Your task to perform on an android device: Open accessibility settings Image 0: 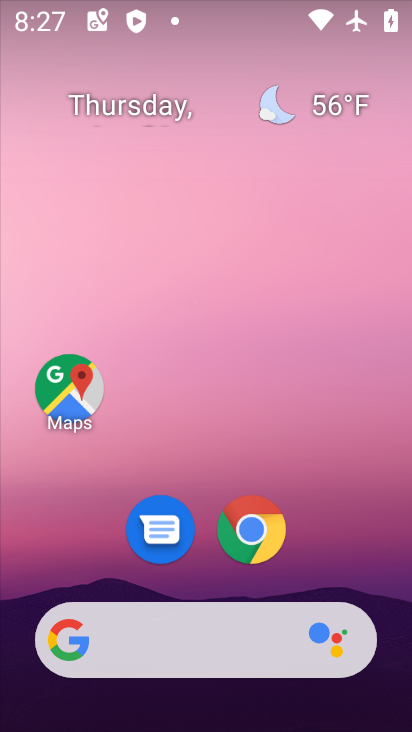
Step 0: drag from (267, 393) to (365, 66)
Your task to perform on an android device: Open accessibility settings Image 1: 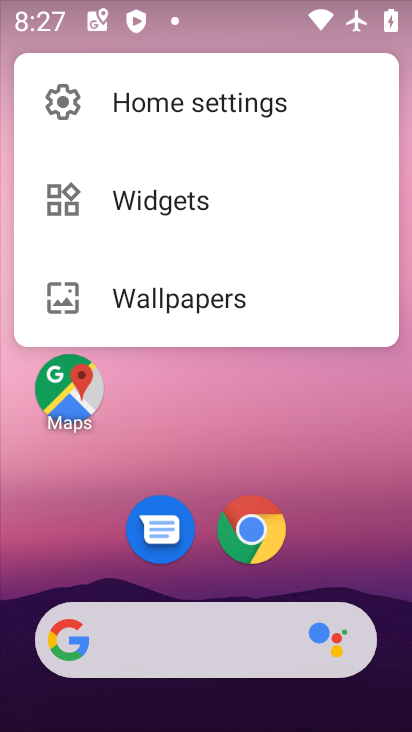
Step 1: drag from (171, 640) to (316, 49)
Your task to perform on an android device: Open accessibility settings Image 2: 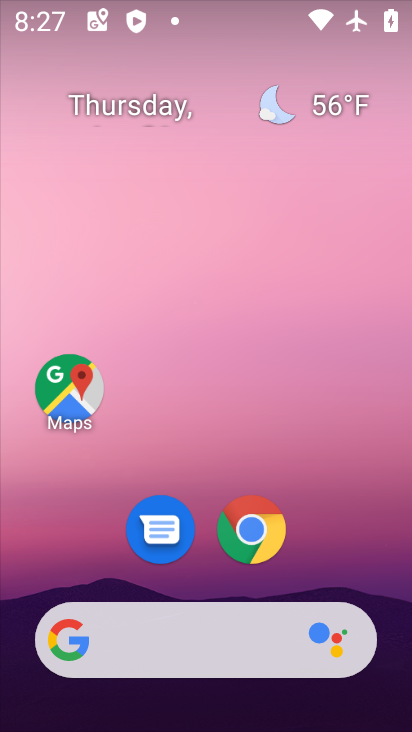
Step 2: drag from (222, 554) to (257, 164)
Your task to perform on an android device: Open accessibility settings Image 3: 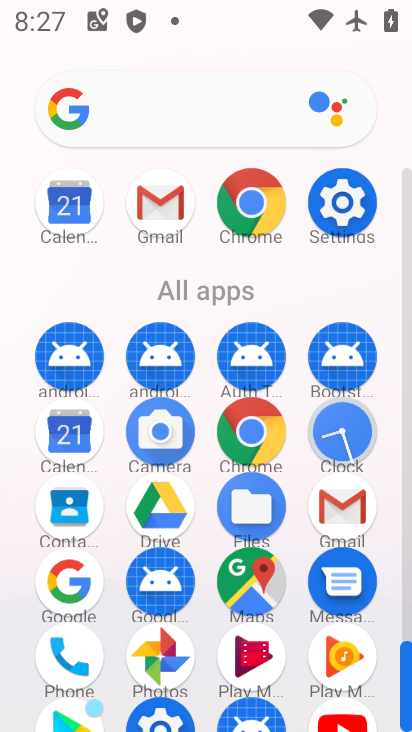
Step 3: click (354, 202)
Your task to perform on an android device: Open accessibility settings Image 4: 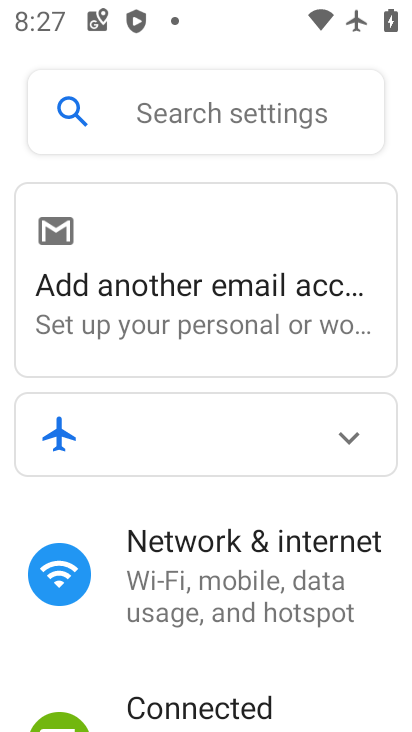
Step 4: drag from (173, 672) to (270, 147)
Your task to perform on an android device: Open accessibility settings Image 5: 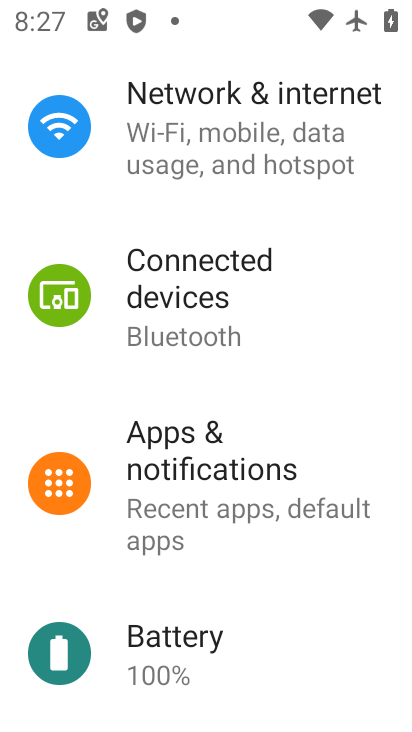
Step 5: drag from (234, 682) to (346, 224)
Your task to perform on an android device: Open accessibility settings Image 6: 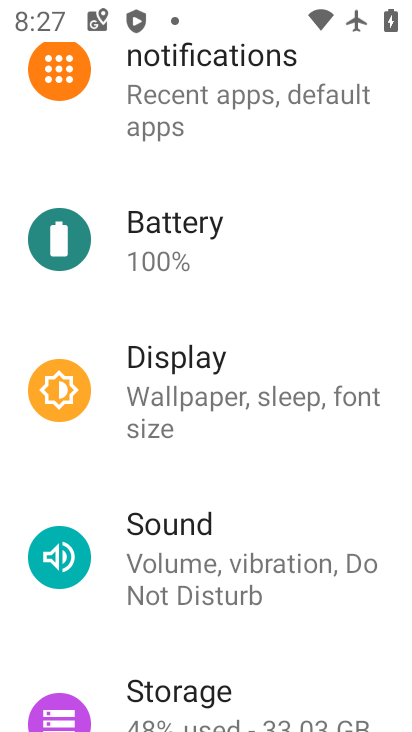
Step 6: drag from (215, 654) to (305, 231)
Your task to perform on an android device: Open accessibility settings Image 7: 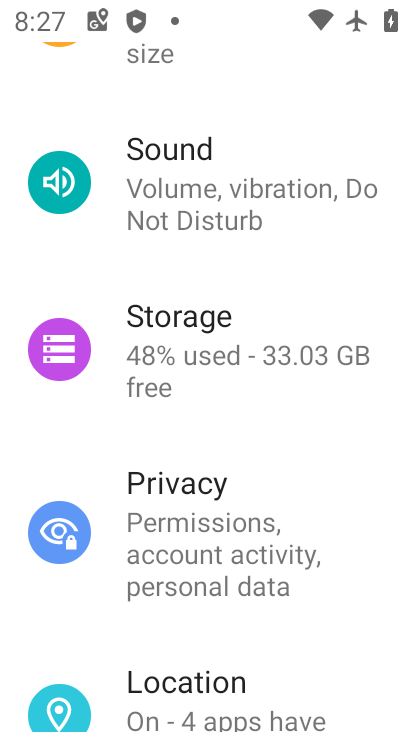
Step 7: drag from (221, 654) to (259, 54)
Your task to perform on an android device: Open accessibility settings Image 8: 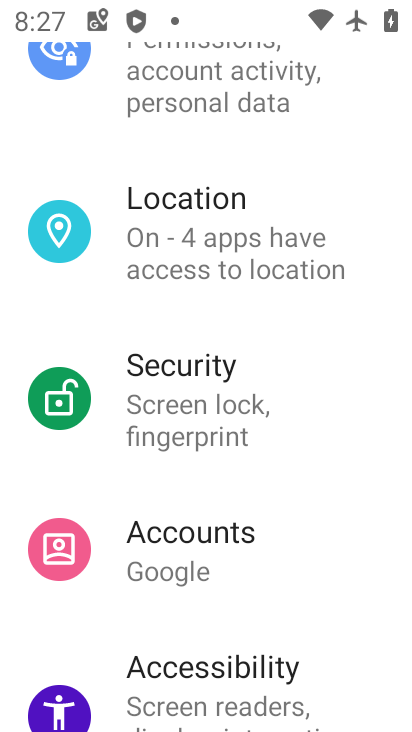
Step 8: click (199, 675)
Your task to perform on an android device: Open accessibility settings Image 9: 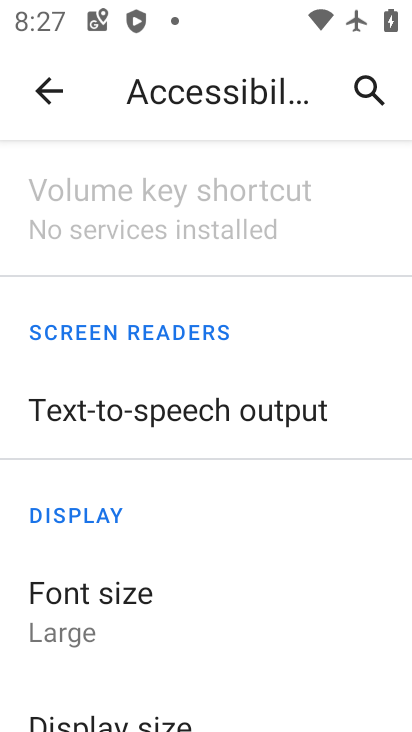
Step 9: task complete